Your task to perform on an android device: What is the recent news? Image 0: 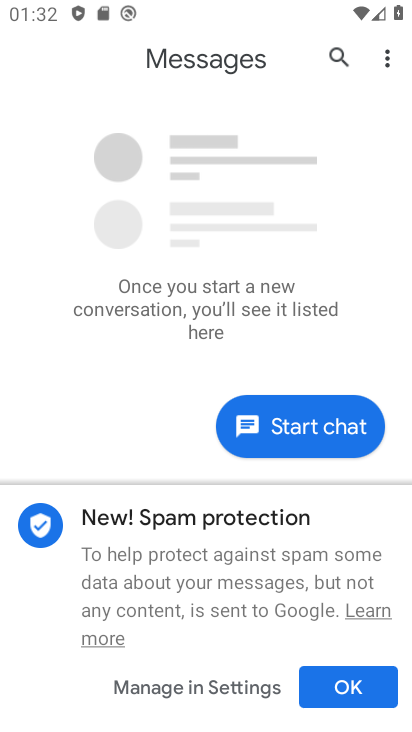
Step 0: press home button
Your task to perform on an android device: What is the recent news? Image 1: 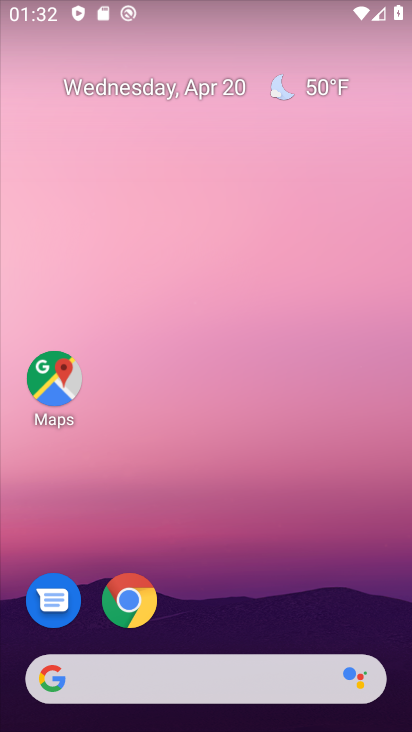
Step 1: drag from (232, 593) to (261, 136)
Your task to perform on an android device: What is the recent news? Image 2: 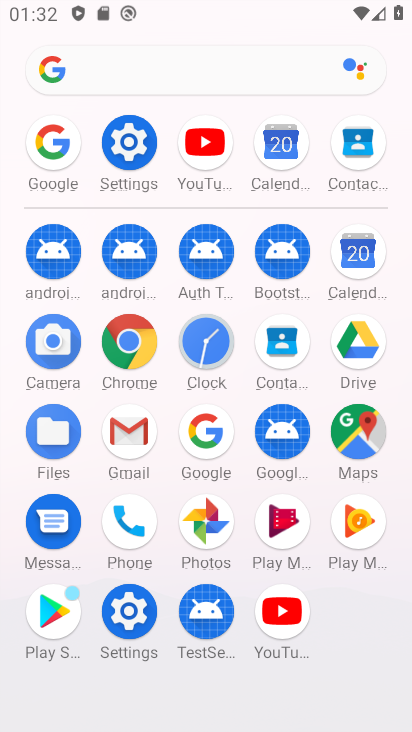
Step 2: click (211, 427)
Your task to perform on an android device: What is the recent news? Image 3: 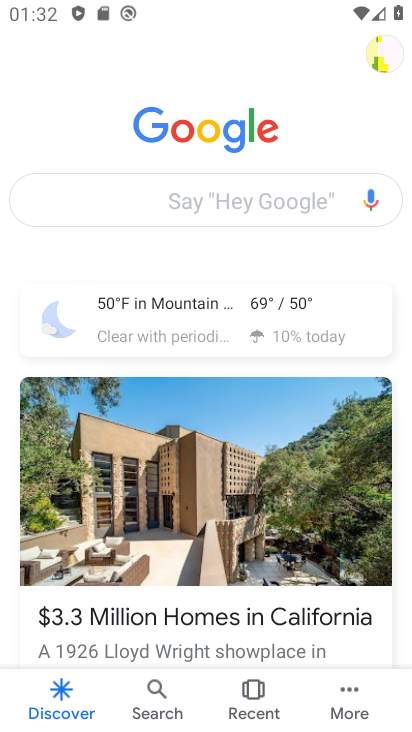
Step 3: click (166, 213)
Your task to perform on an android device: What is the recent news? Image 4: 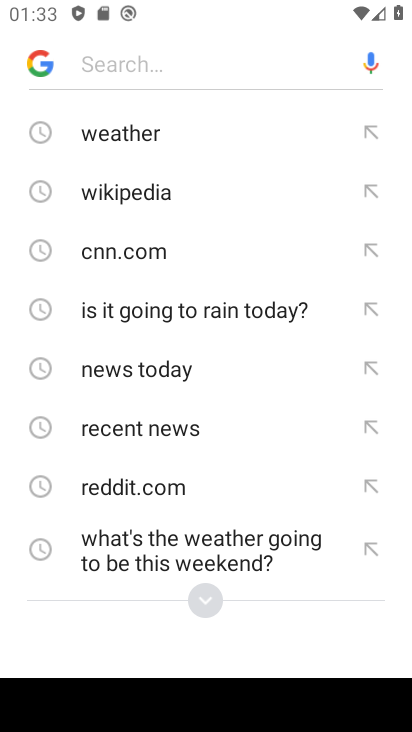
Step 4: click (144, 436)
Your task to perform on an android device: What is the recent news? Image 5: 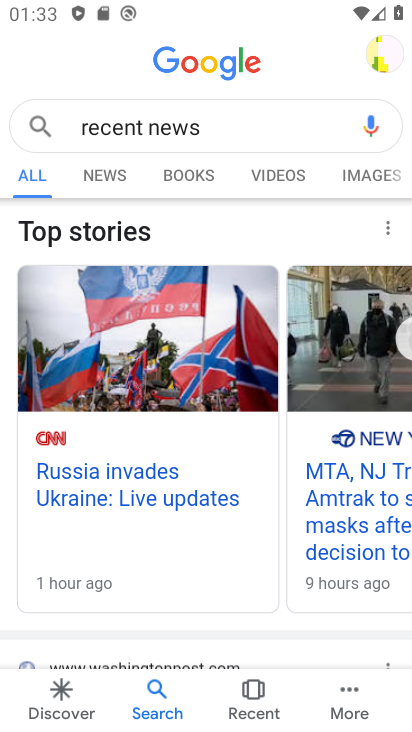
Step 5: task complete